Your task to perform on an android device: Turn off the flashlight Image 0: 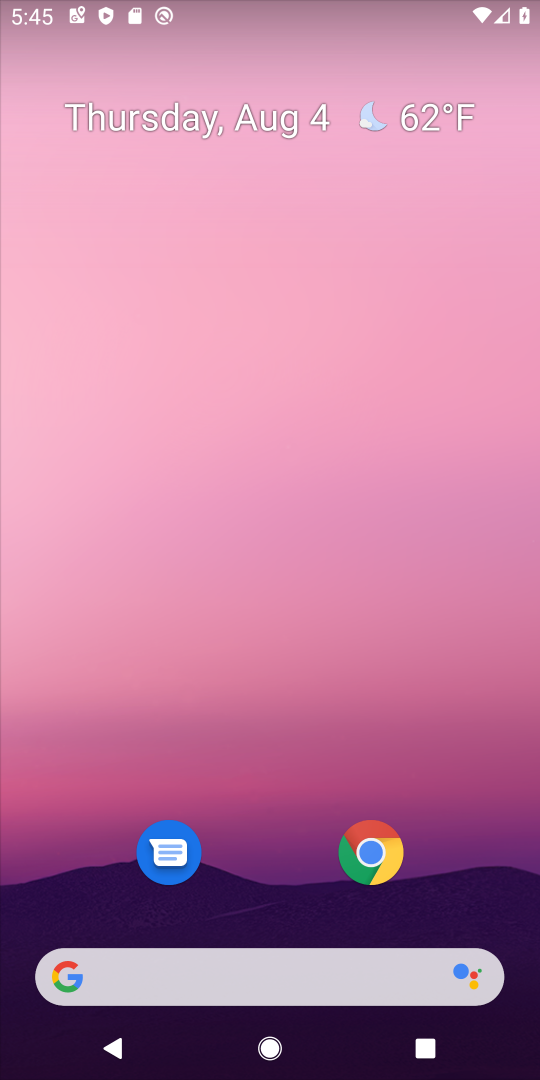
Step 0: drag from (295, 837) to (316, 164)
Your task to perform on an android device: Turn off the flashlight Image 1: 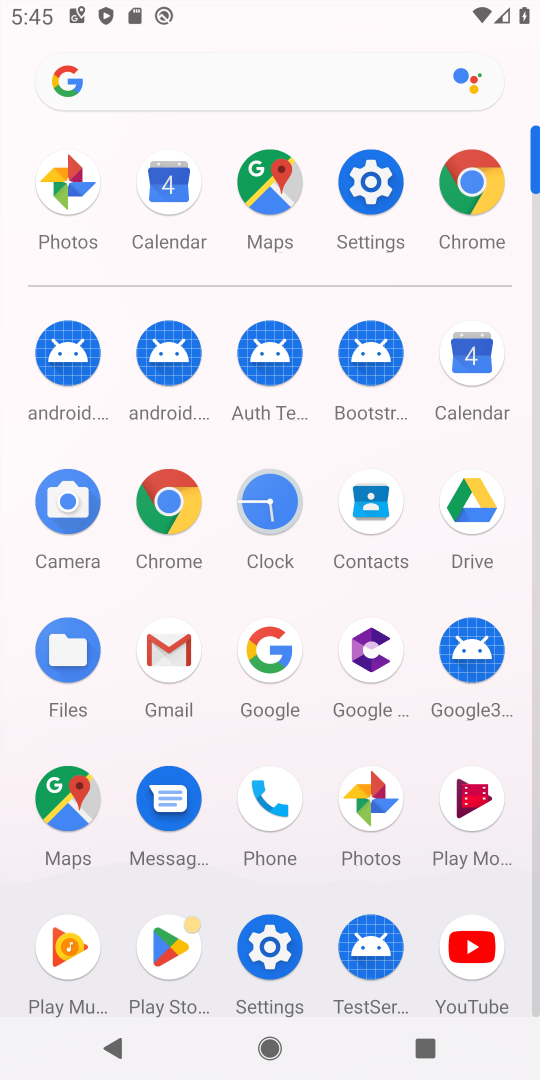
Step 1: click (374, 200)
Your task to perform on an android device: Turn off the flashlight Image 2: 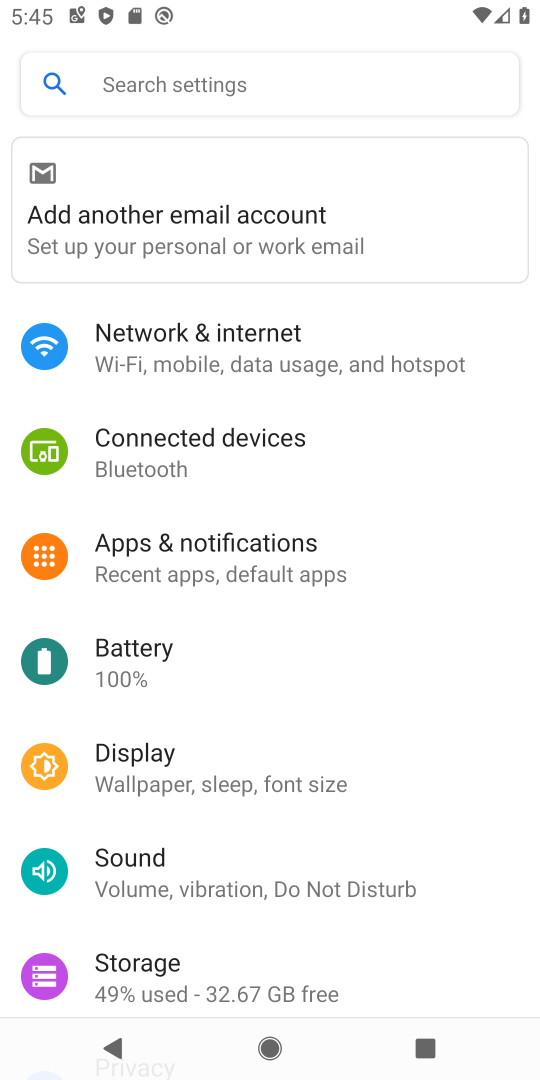
Step 2: task complete